Your task to perform on an android device: find which apps use the phone's location Image 0: 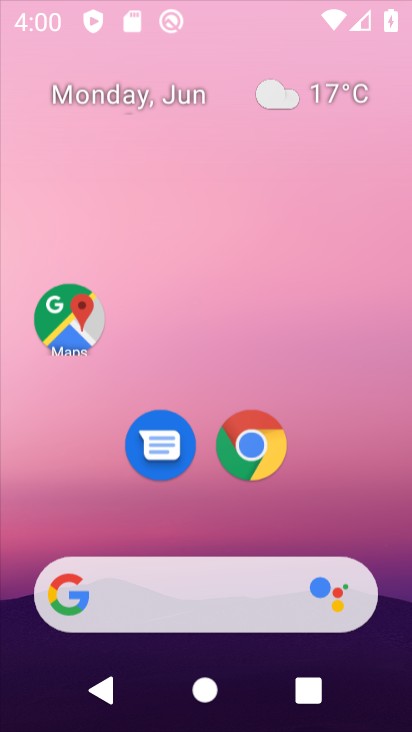
Step 0: drag from (221, 516) to (220, 62)
Your task to perform on an android device: find which apps use the phone's location Image 1: 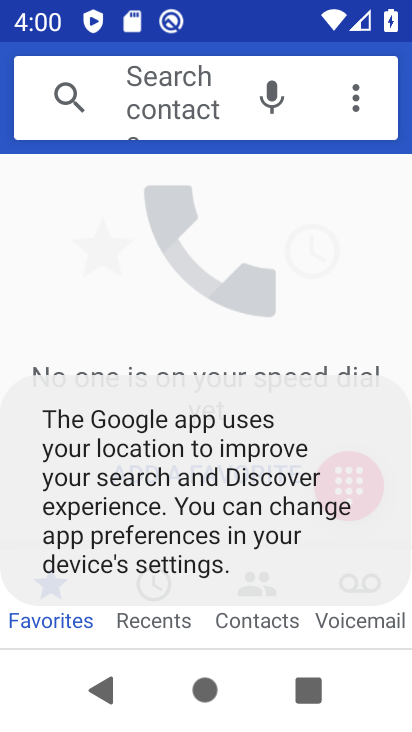
Step 1: press home button
Your task to perform on an android device: find which apps use the phone's location Image 2: 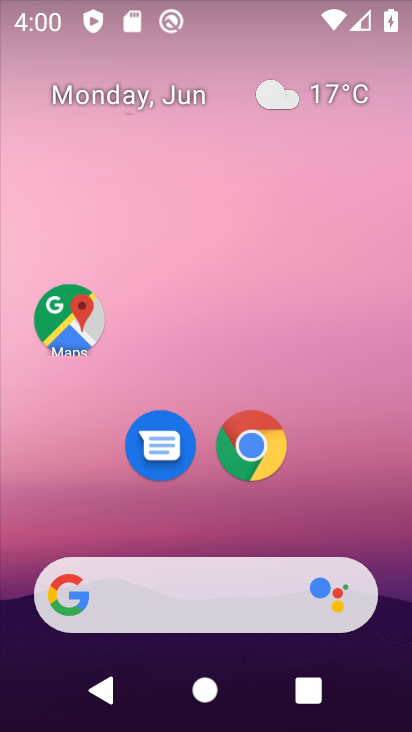
Step 2: drag from (186, 536) to (217, 238)
Your task to perform on an android device: find which apps use the phone's location Image 3: 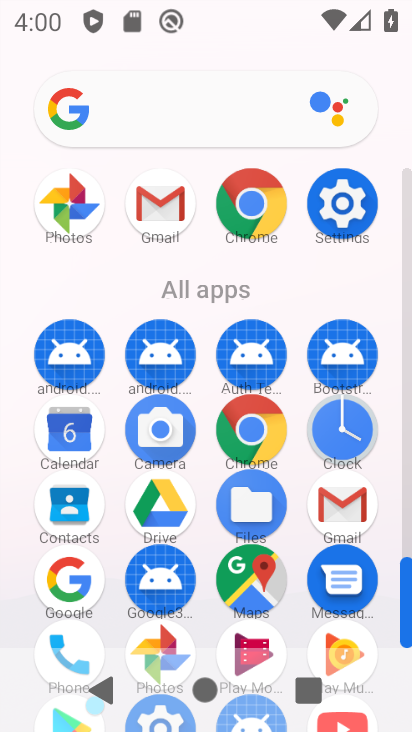
Step 3: click (333, 196)
Your task to perform on an android device: find which apps use the phone's location Image 4: 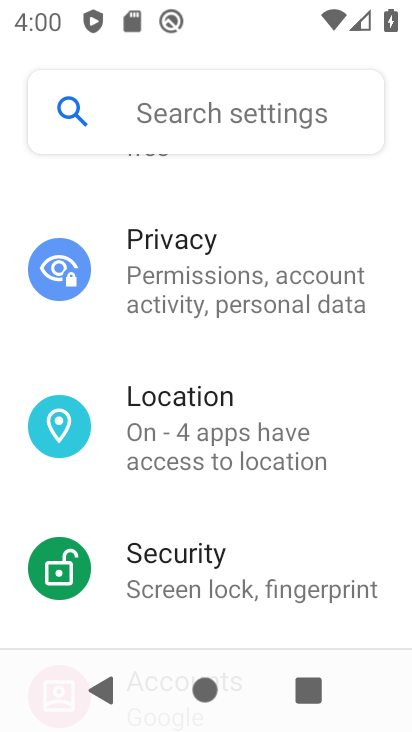
Step 4: click (170, 438)
Your task to perform on an android device: find which apps use the phone's location Image 5: 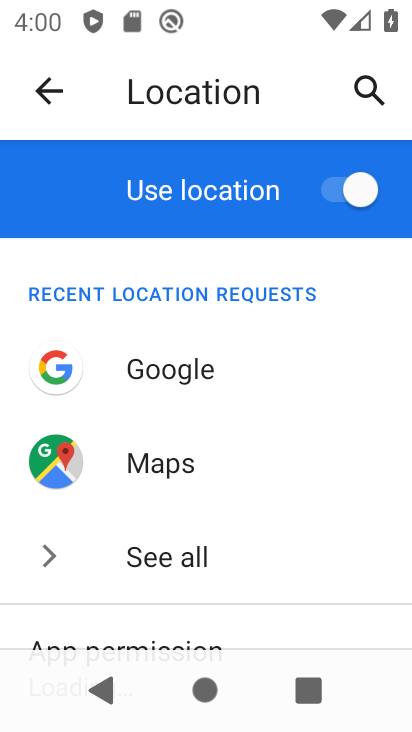
Step 5: drag from (240, 567) to (224, 409)
Your task to perform on an android device: find which apps use the phone's location Image 6: 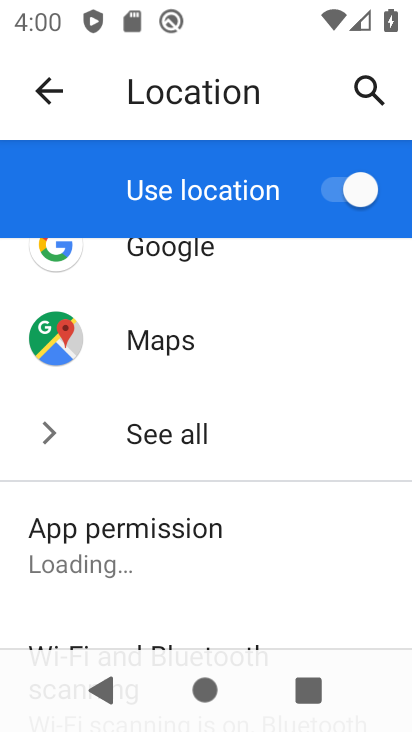
Step 6: drag from (205, 575) to (212, 262)
Your task to perform on an android device: find which apps use the phone's location Image 7: 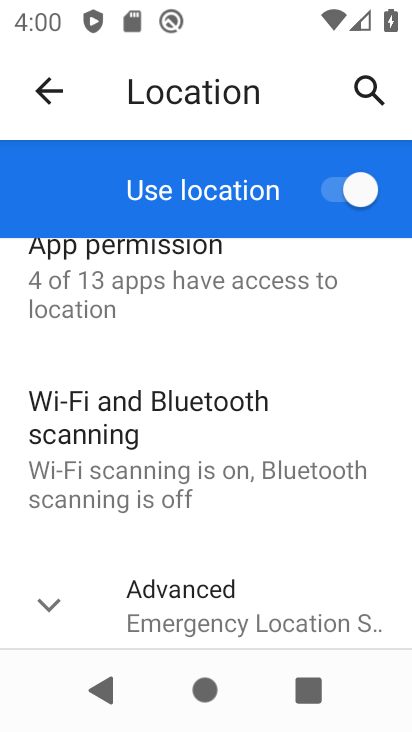
Step 7: drag from (193, 553) to (202, 326)
Your task to perform on an android device: find which apps use the phone's location Image 8: 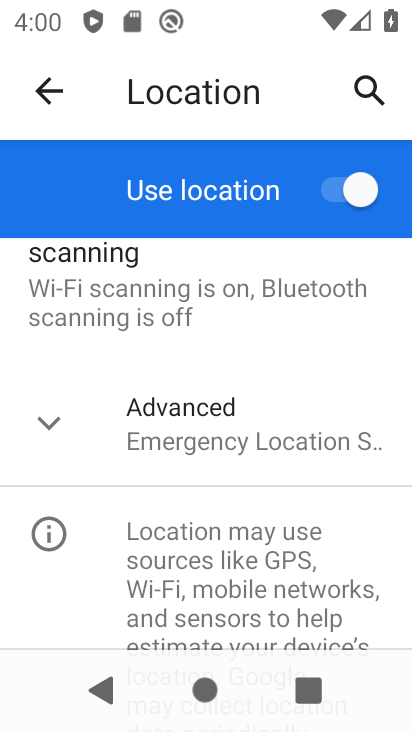
Step 8: drag from (169, 320) to (172, 586)
Your task to perform on an android device: find which apps use the phone's location Image 9: 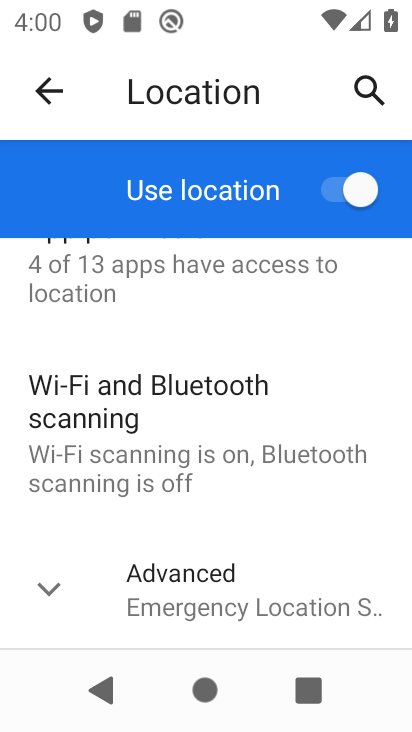
Step 9: click (139, 294)
Your task to perform on an android device: find which apps use the phone's location Image 10: 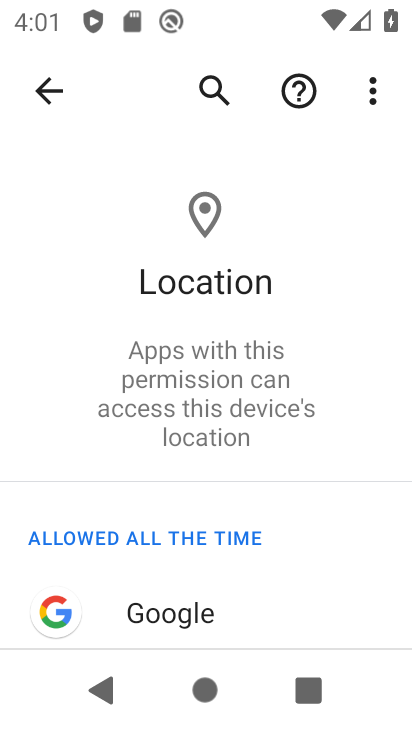
Step 10: task complete